Your task to perform on an android device: Open Google Maps and go to "Timeline" Image 0: 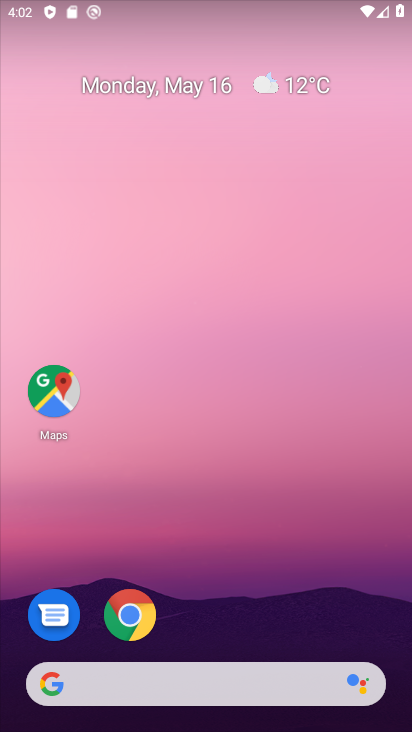
Step 0: click (43, 408)
Your task to perform on an android device: Open Google Maps and go to "Timeline" Image 1: 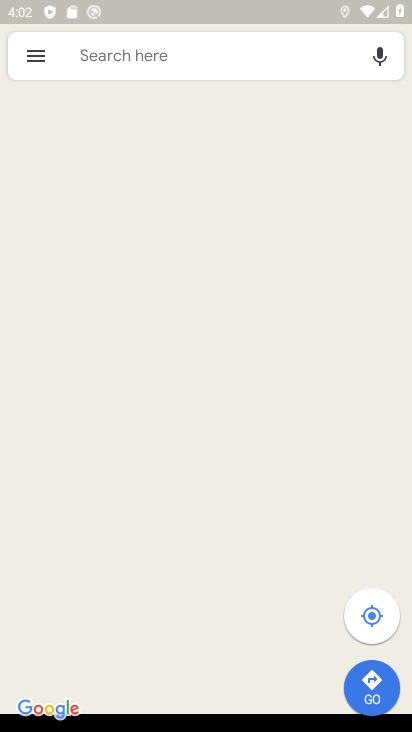
Step 1: click (38, 60)
Your task to perform on an android device: Open Google Maps and go to "Timeline" Image 2: 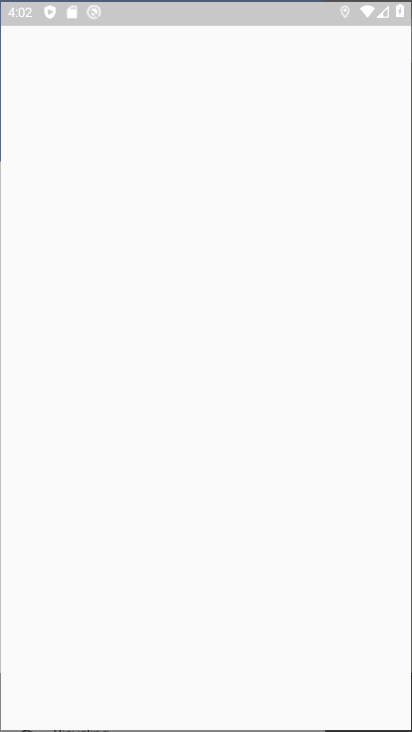
Step 2: click (99, 242)
Your task to perform on an android device: Open Google Maps and go to "Timeline" Image 3: 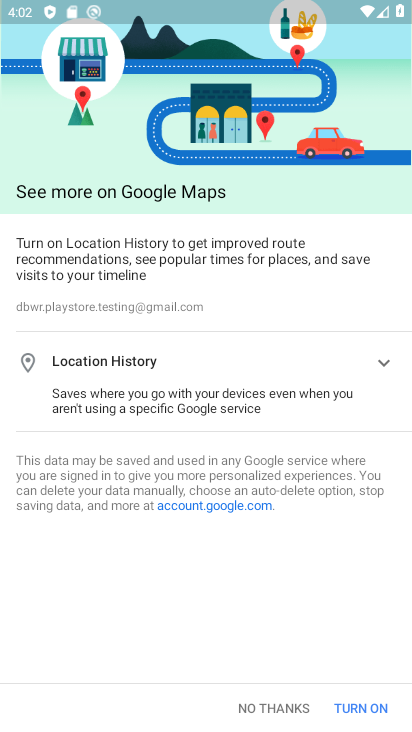
Step 3: click (362, 706)
Your task to perform on an android device: Open Google Maps and go to "Timeline" Image 4: 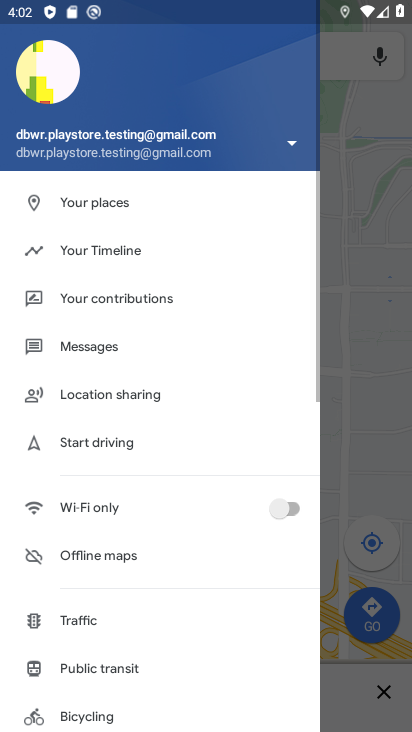
Step 4: click (92, 248)
Your task to perform on an android device: Open Google Maps and go to "Timeline" Image 5: 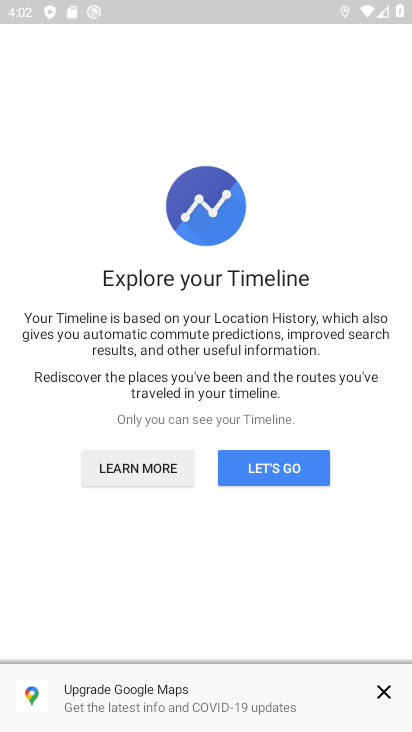
Step 5: click (247, 473)
Your task to perform on an android device: Open Google Maps and go to "Timeline" Image 6: 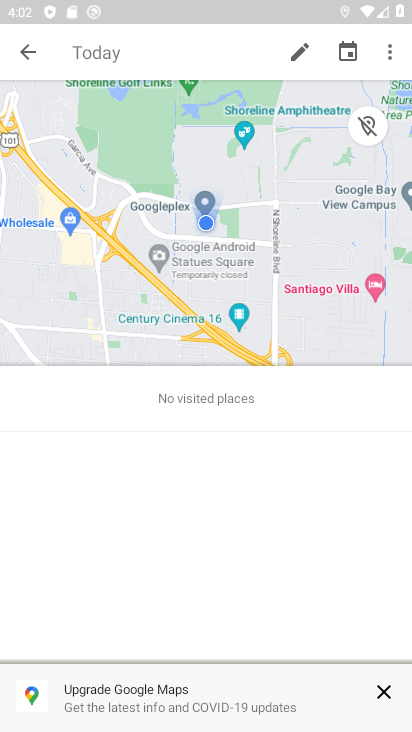
Step 6: task complete